Your task to perform on an android device: Go to Yahoo.com Image 0: 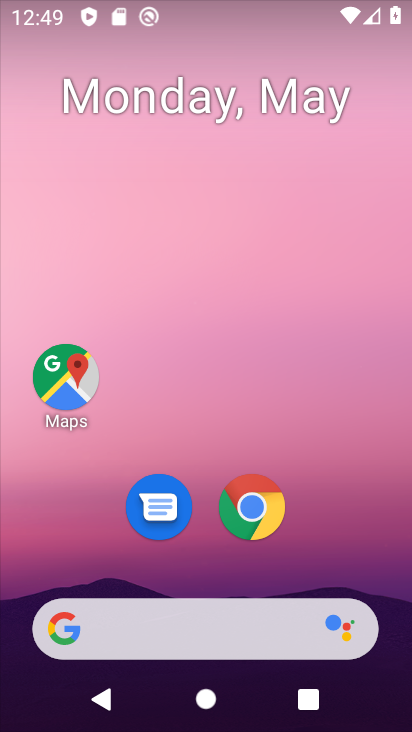
Step 0: click (248, 502)
Your task to perform on an android device: Go to Yahoo.com Image 1: 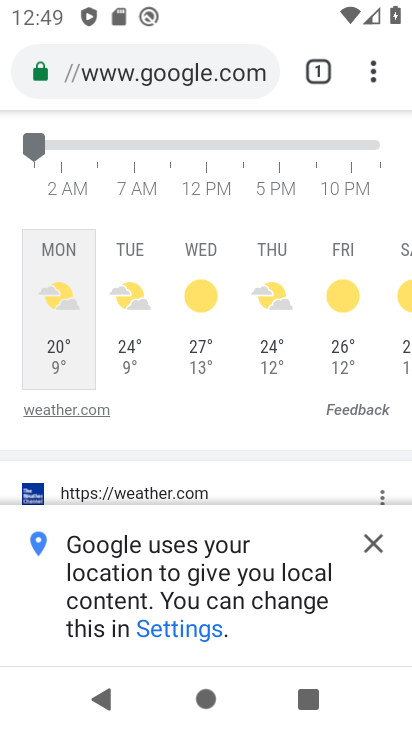
Step 1: click (208, 77)
Your task to perform on an android device: Go to Yahoo.com Image 2: 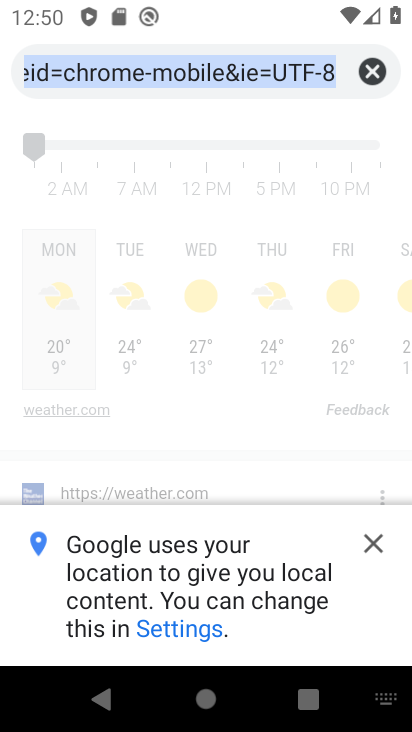
Step 2: type "yahoo.com"
Your task to perform on an android device: Go to Yahoo.com Image 3: 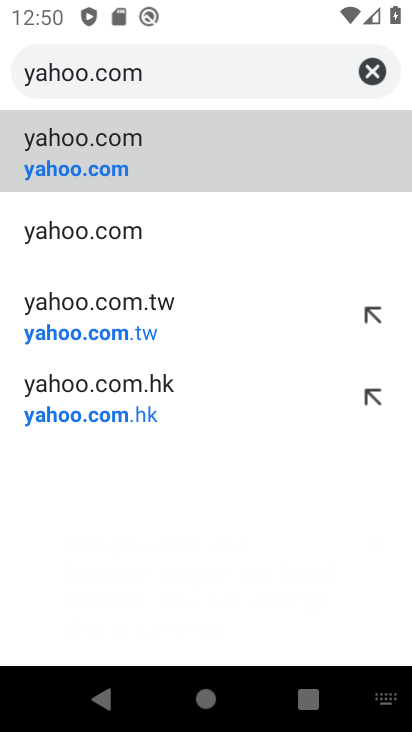
Step 3: click (62, 161)
Your task to perform on an android device: Go to Yahoo.com Image 4: 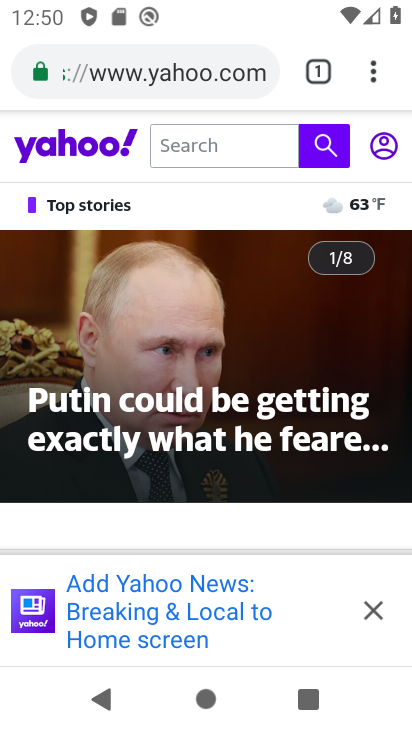
Step 4: task complete